Your task to perform on an android device: snooze an email in the gmail app Image 0: 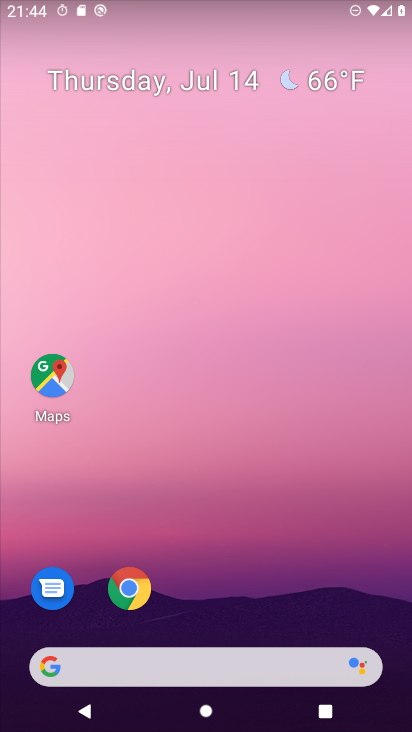
Step 0: drag from (348, 613) to (352, 82)
Your task to perform on an android device: snooze an email in the gmail app Image 1: 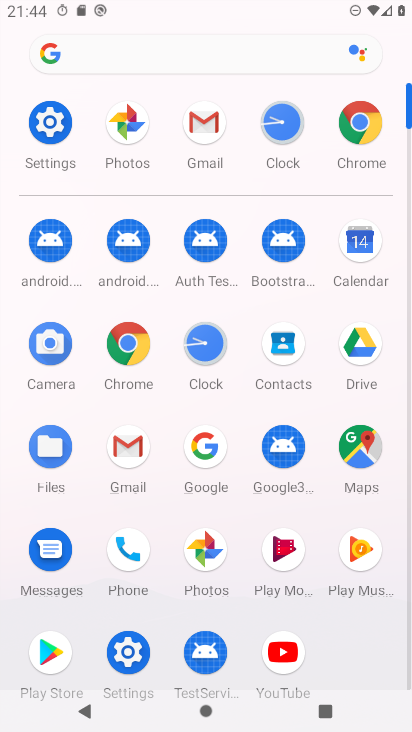
Step 1: click (204, 130)
Your task to perform on an android device: snooze an email in the gmail app Image 2: 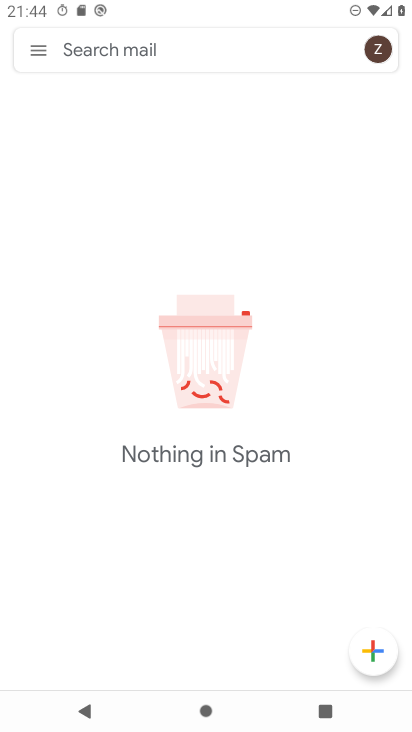
Step 2: click (39, 47)
Your task to perform on an android device: snooze an email in the gmail app Image 3: 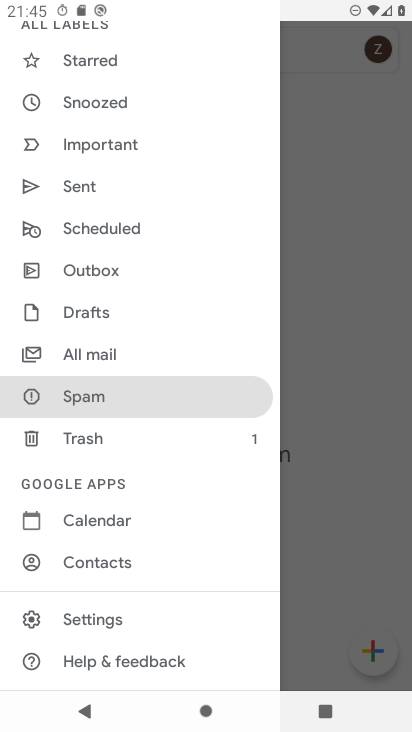
Step 3: drag from (165, 205) to (177, 299)
Your task to perform on an android device: snooze an email in the gmail app Image 4: 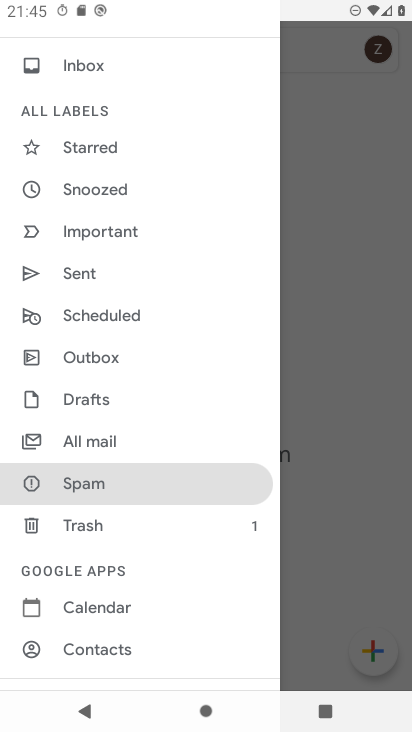
Step 4: drag from (202, 149) to (205, 236)
Your task to perform on an android device: snooze an email in the gmail app Image 5: 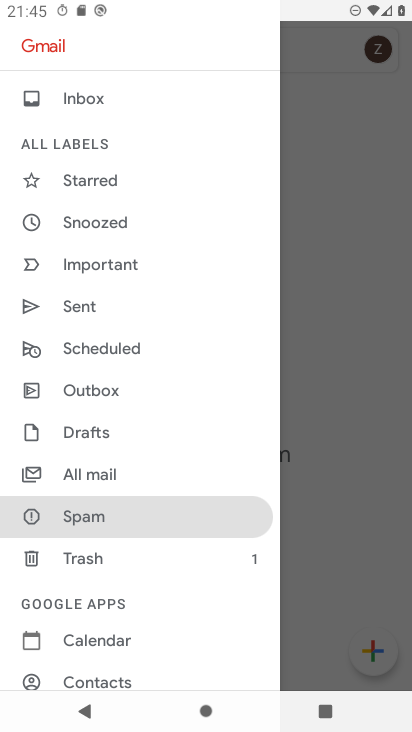
Step 5: click (144, 237)
Your task to perform on an android device: snooze an email in the gmail app Image 6: 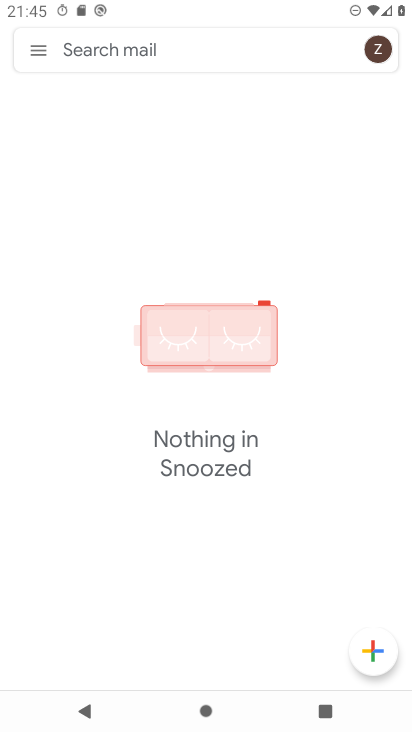
Step 6: task complete